Your task to perform on an android device: Open Reddit.com Image 0: 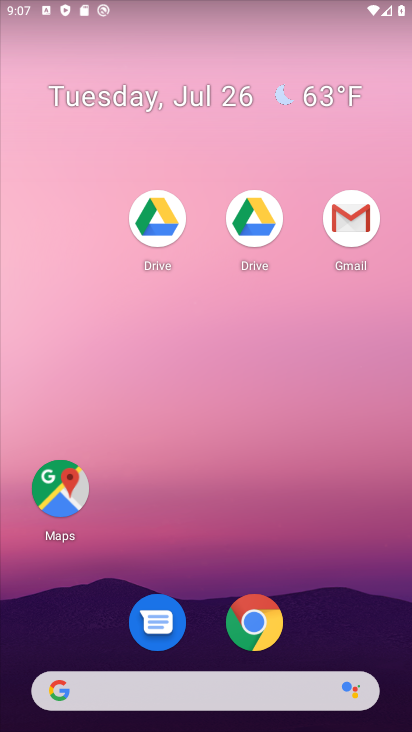
Step 0: click (219, 699)
Your task to perform on an android device: Open Reddit.com Image 1: 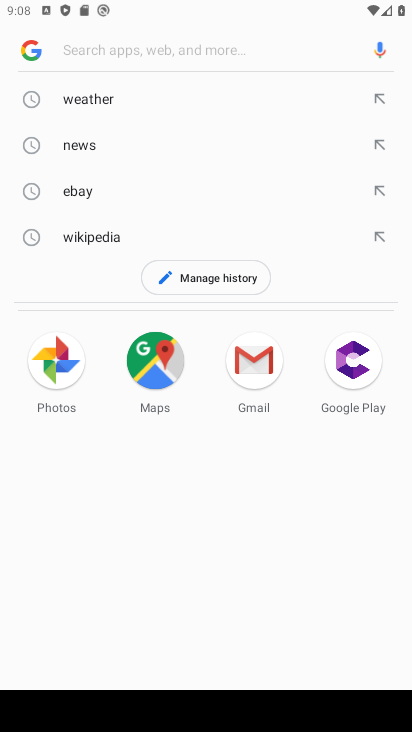
Step 1: type "reddit.com"
Your task to perform on an android device: Open Reddit.com Image 2: 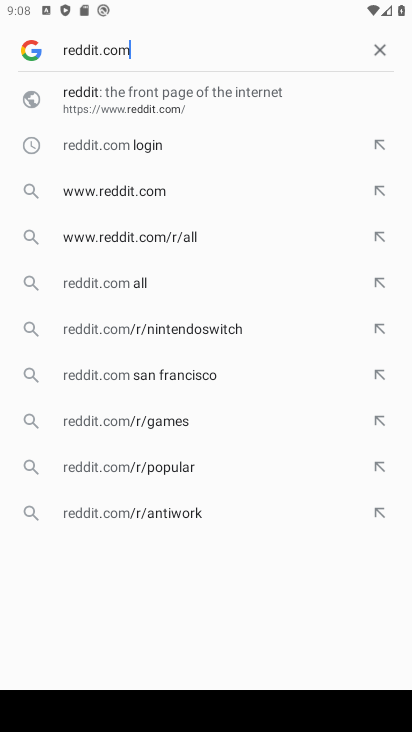
Step 2: click (174, 102)
Your task to perform on an android device: Open Reddit.com Image 3: 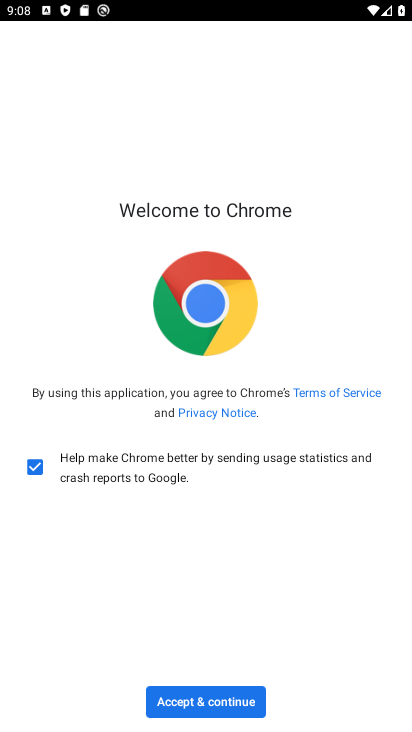
Step 3: click (203, 698)
Your task to perform on an android device: Open Reddit.com Image 4: 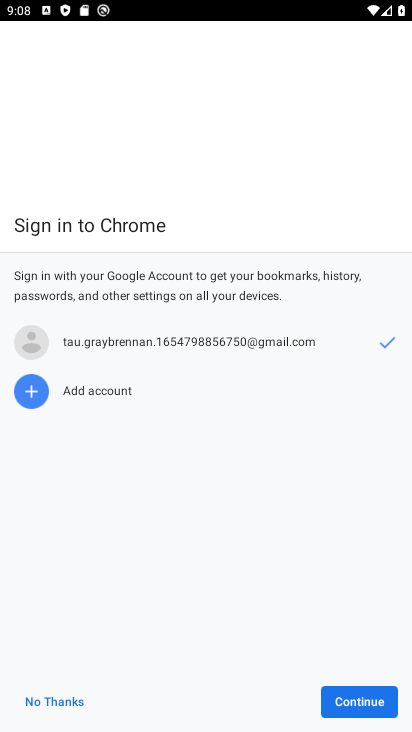
Step 4: click (339, 690)
Your task to perform on an android device: Open Reddit.com Image 5: 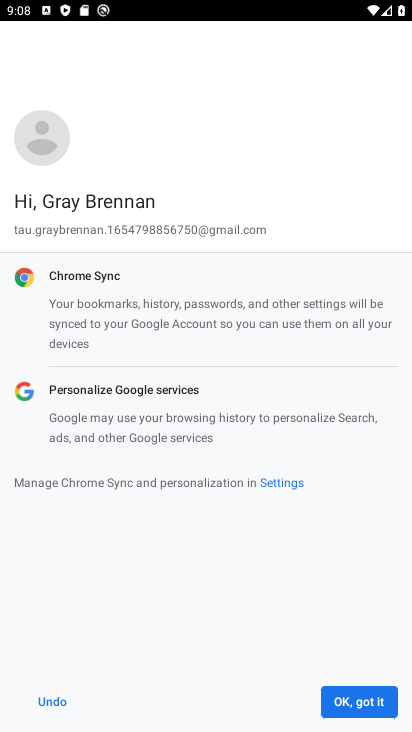
Step 5: click (369, 691)
Your task to perform on an android device: Open Reddit.com Image 6: 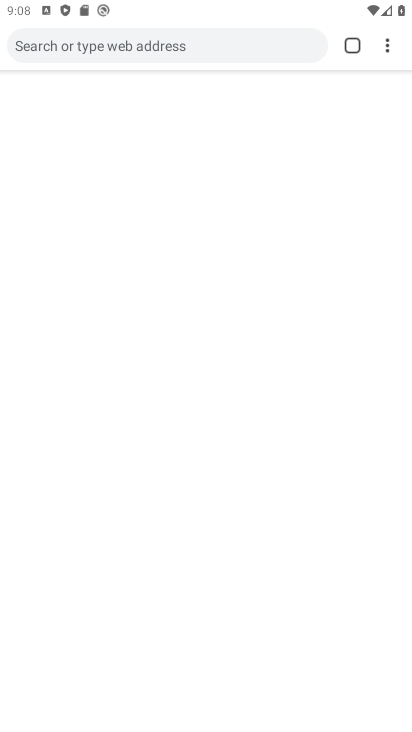
Step 6: task complete